Your task to perform on an android device: turn on the 12-hour format for clock Image 0: 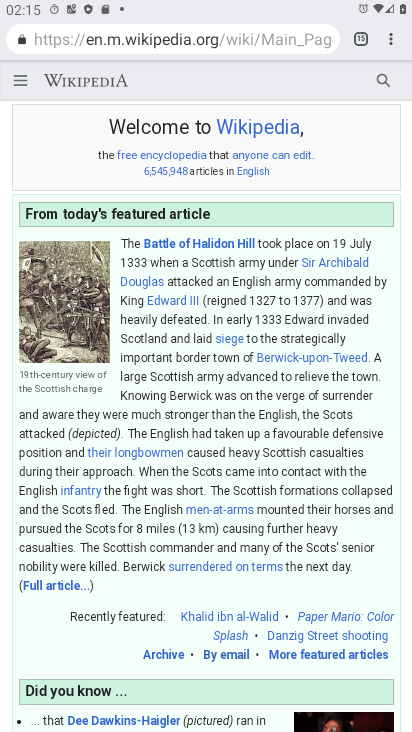
Step 0: press home button
Your task to perform on an android device: turn on the 12-hour format for clock Image 1: 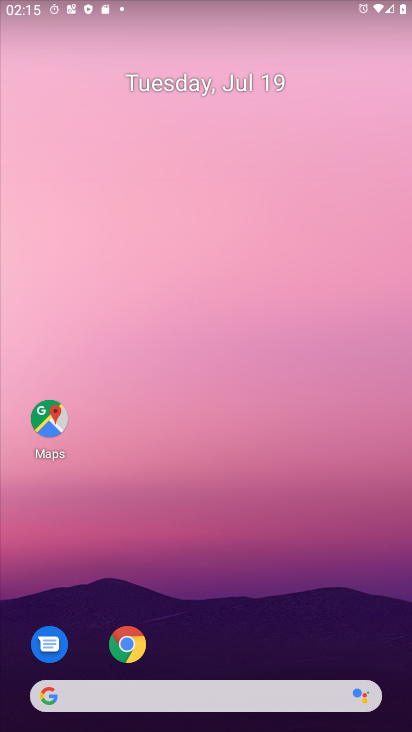
Step 1: drag from (240, 703) to (240, 184)
Your task to perform on an android device: turn on the 12-hour format for clock Image 2: 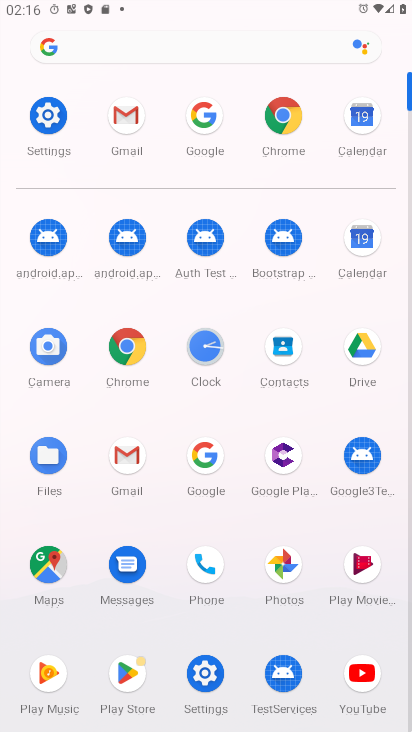
Step 2: click (201, 348)
Your task to perform on an android device: turn on the 12-hour format for clock Image 3: 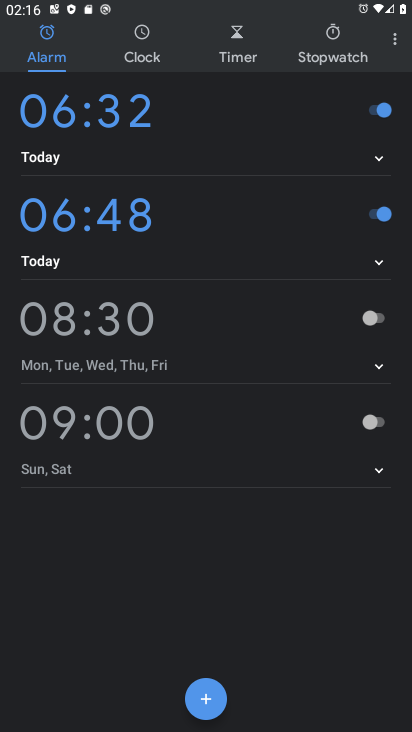
Step 3: click (398, 43)
Your task to perform on an android device: turn on the 12-hour format for clock Image 4: 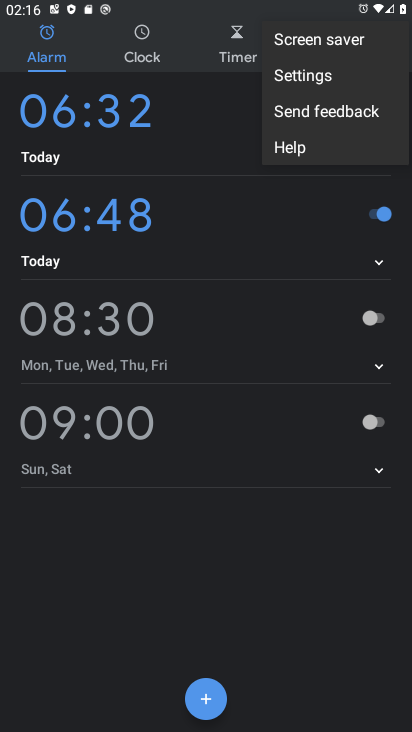
Step 4: click (324, 82)
Your task to perform on an android device: turn on the 12-hour format for clock Image 5: 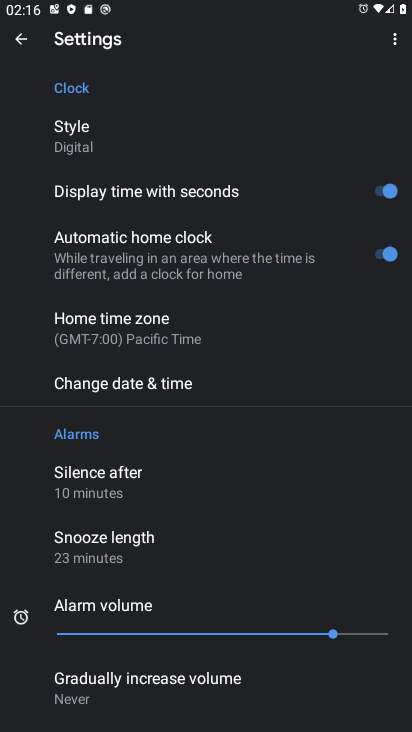
Step 5: click (132, 385)
Your task to perform on an android device: turn on the 12-hour format for clock Image 6: 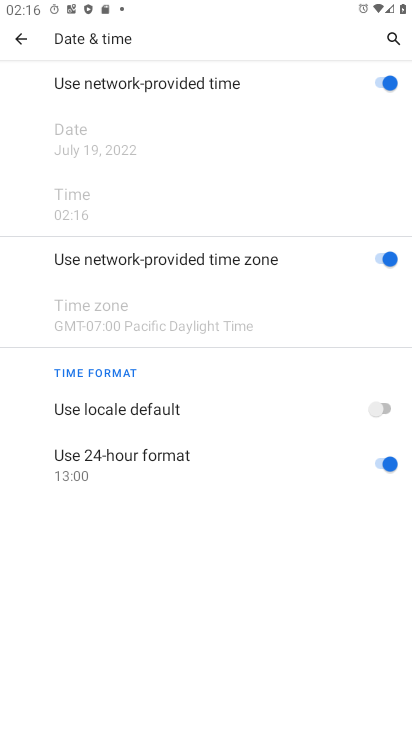
Step 6: task complete